Your task to perform on an android device: Open Chrome and go to the settings page Image 0: 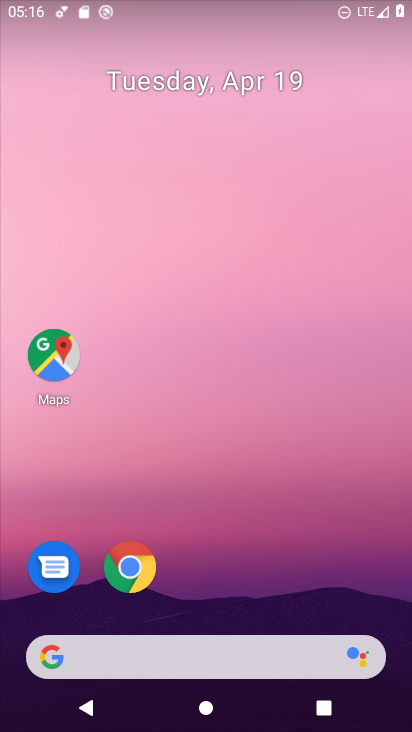
Step 0: drag from (229, 662) to (282, 29)
Your task to perform on an android device: Open Chrome and go to the settings page Image 1: 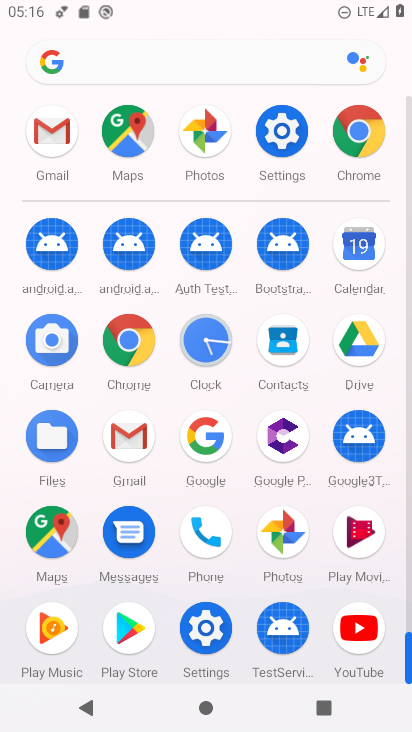
Step 1: click (132, 343)
Your task to perform on an android device: Open Chrome and go to the settings page Image 2: 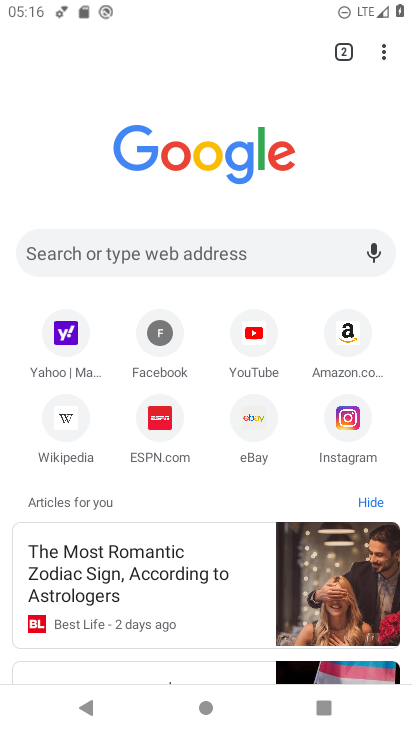
Step 2: click (377, 49)
Your task to perform on an android device: Open Chrome and go to the settings page Image 3: 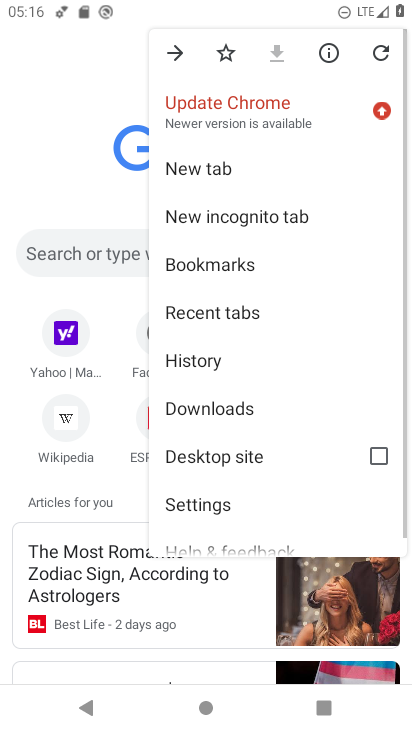
Step 3: click (269, 504)
Your task to perform on an android device: Open Chrome and go to the settings page Image 4: 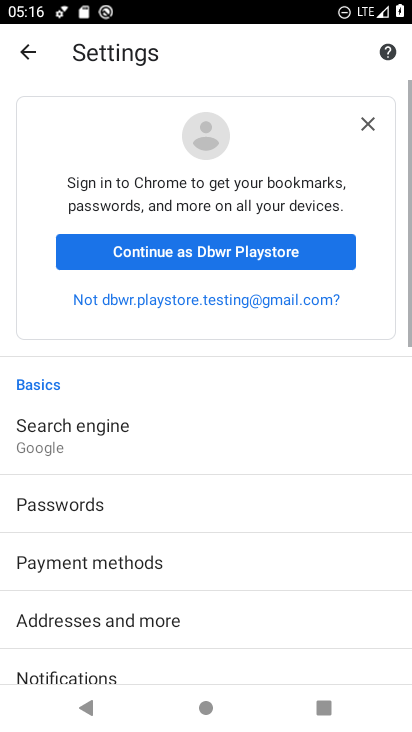
Step 4: task complete